Your task to perform on an android device: Open Chrome and go to the settings page Image 0: 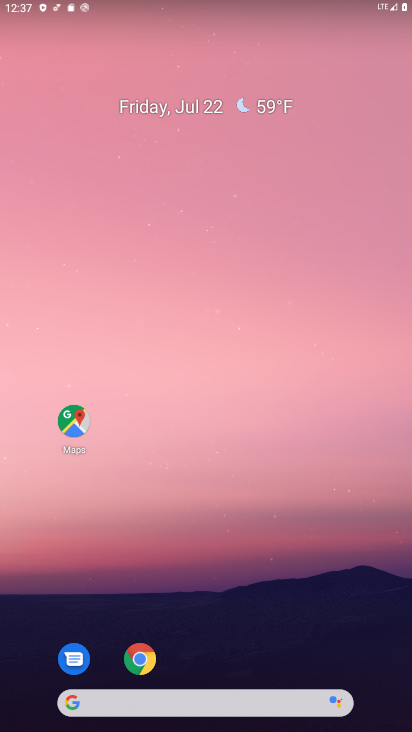
Step 0: click (145, 656)
Your task to perform on an android device: Open Chrome and go to the settings page Image 1: 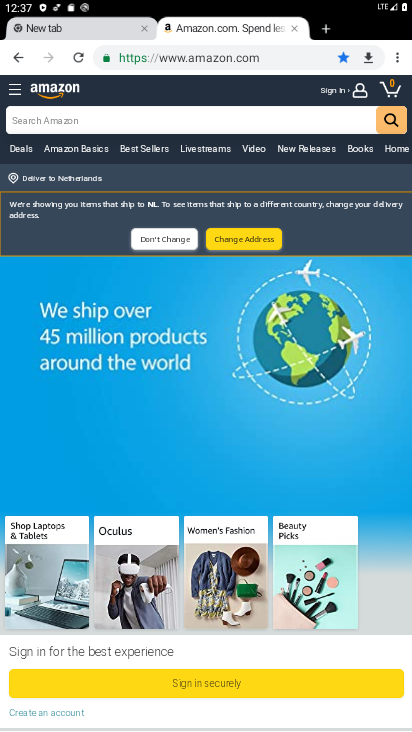
Step 1: click (399, 55)
Your task to perform on an android device: Open Chrome and go to the settings page Image 2: 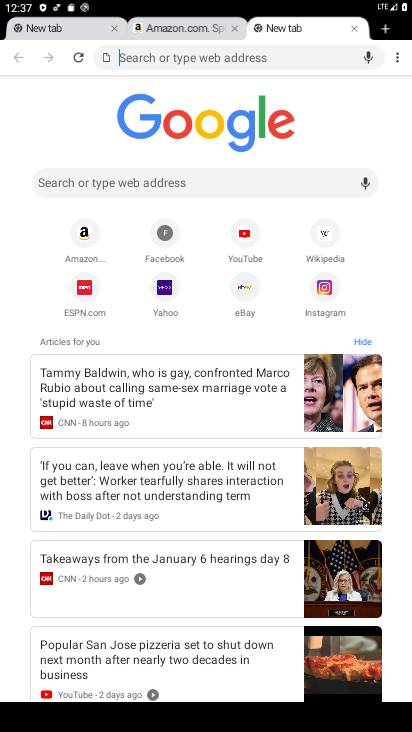
Step 2: click (389, 68)
Your task to perform on an android device: Open Chrome and go to the settings page Image 3: 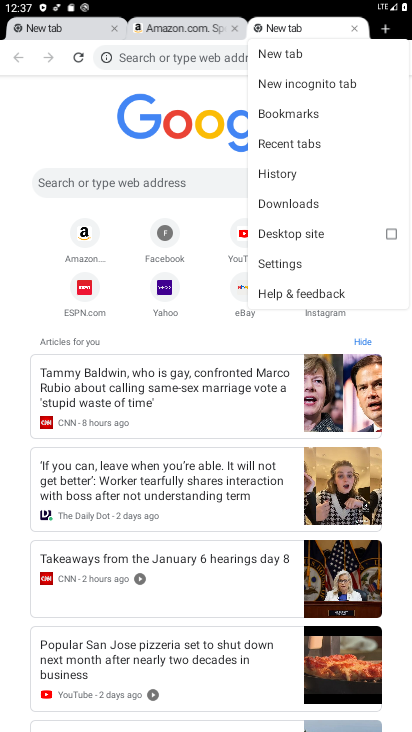
Step 3: click (291, 197)
Your task to perform on an android device: Open Chrome and go to the settings page Image 4: 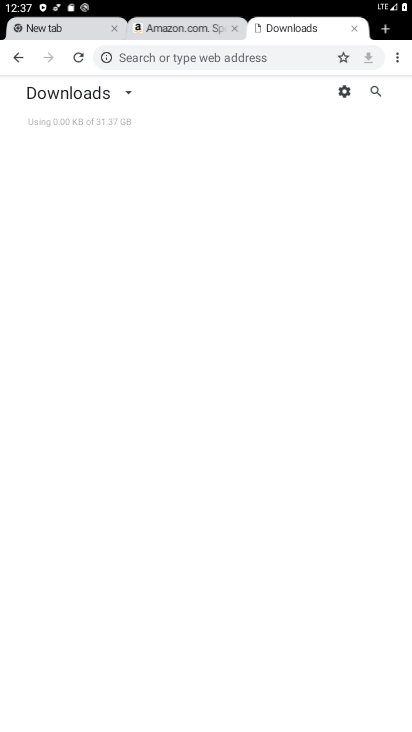
Step 4: click (129, 91)
Your task to perform on an android device: Open Chrome and go to the settings page Image 5: 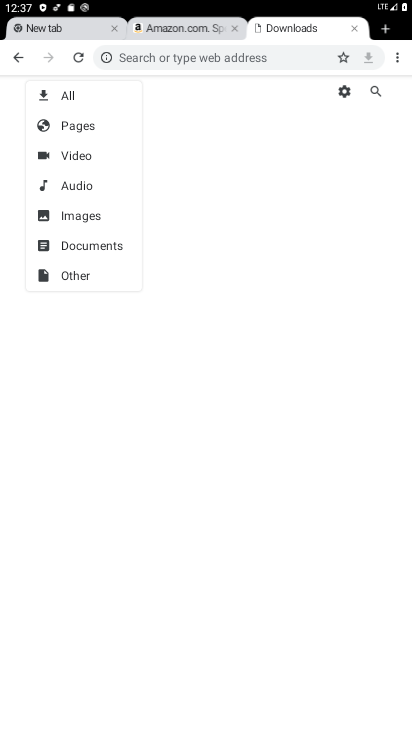
Step 5: click (95, 124)
Your task to perform on an android device: Open Chrome and go to the settings page Image 6: 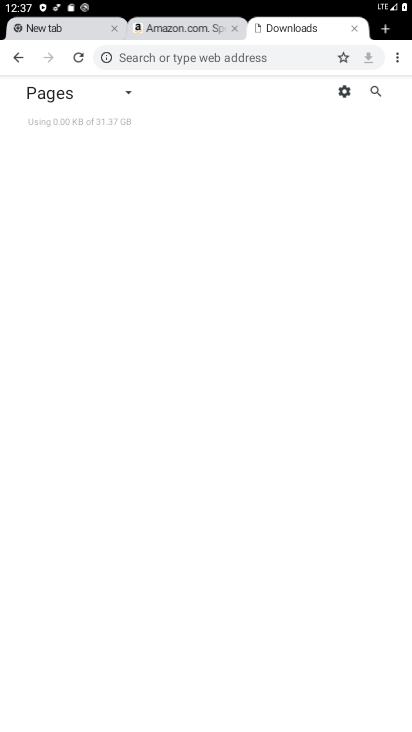
Step 6: task complete